Your task to perform on an android device: Search for "dell xps" on amazon.com, select the first entry, and add it to the cart. Image 0: 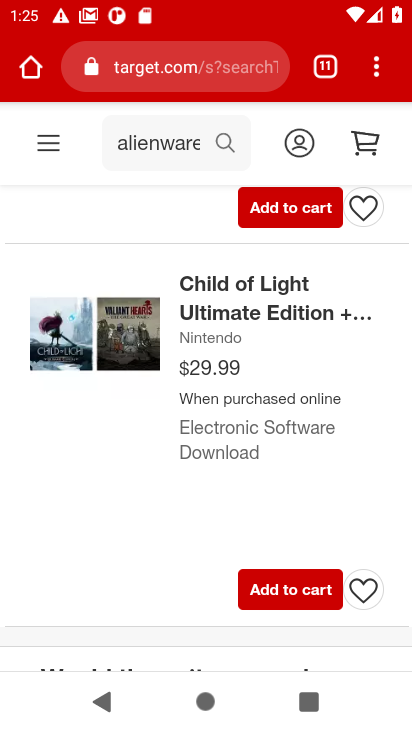
Step 0: click (162, 61)
Your task to perform on an android device: Search for "dell xps" on amazon.com, select the first entry, and add it to the cart. Image 1: 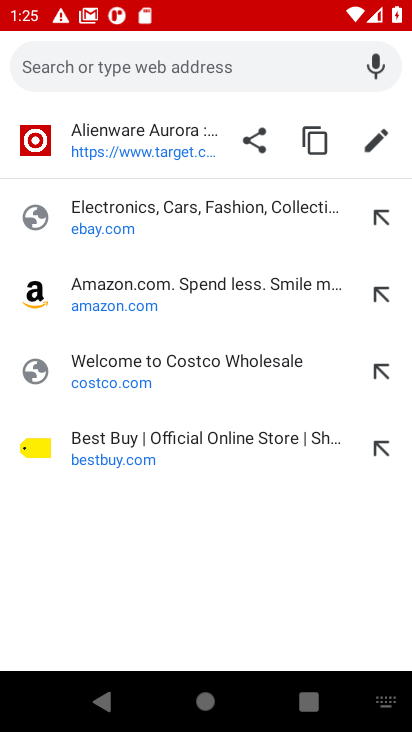
Step 1: click (82, 293)
Your task to perform on an android device: Search for "dell xps" on amazon.com, select the first entry, and add it to the cart. Image 2: 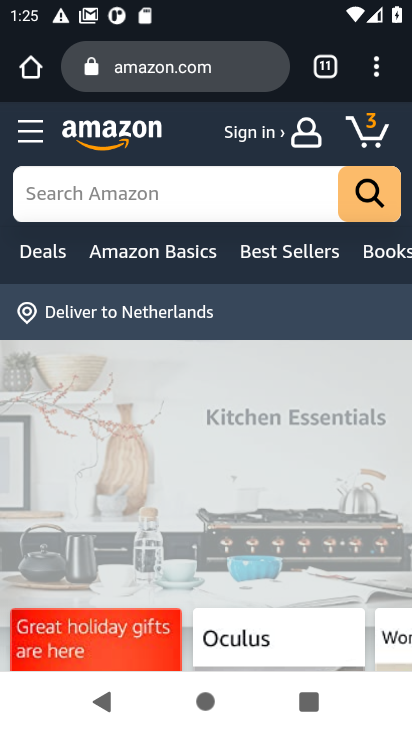
Step 2: click (113, 196)
Your task to perform on an android device: Search for "dell xps" on amazon.com, select the first entry, and add it to the cart. Image 3: 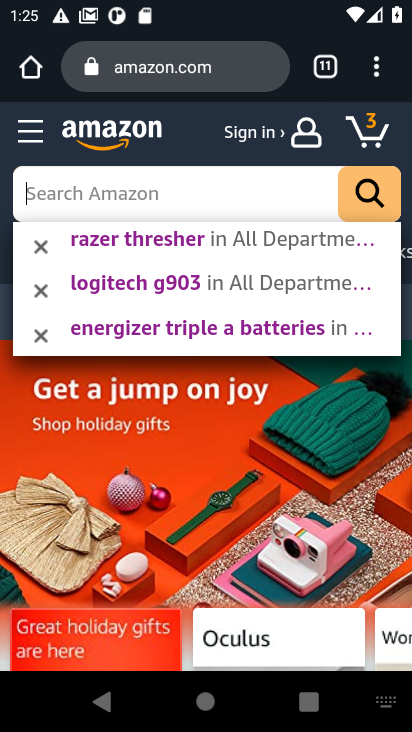
Step 3: type "dell xps"
Your task to perform on an android device: Search for "dell xps" on amazon.com, select the first entry, and add it to the cart. Image 4: 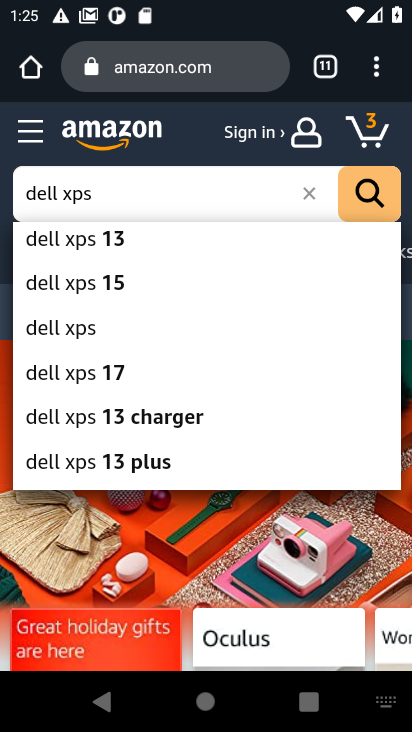
Step 4: click (79, 337)
Your task to perform on an android device: Search for "dell xps" on amazon.com, select the first entry, and add it to the cart. Image 5: 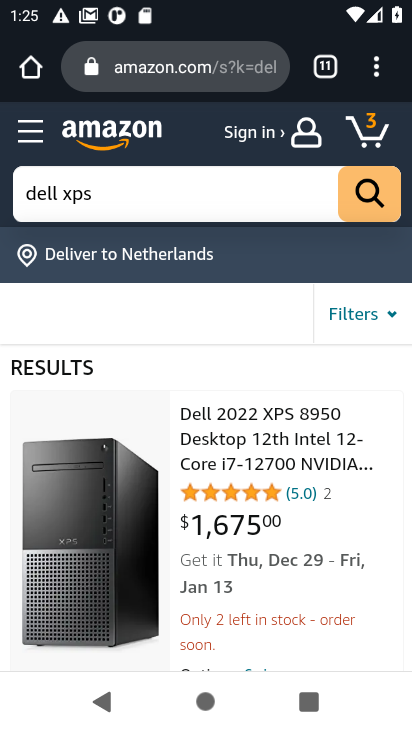
Step 5: drag from (194, 520) to (188, 307)
Your task to perform on an android device: Search for "dell xps" on amazon.com, select the first entry, and add it to the cart. Image 6: 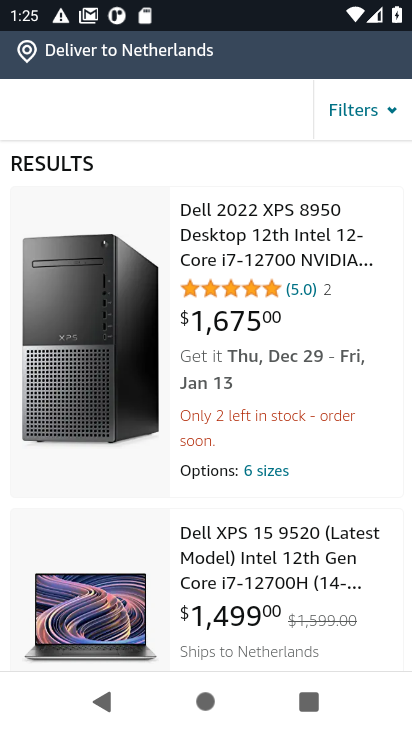
Step 6: click (318, 262)
Your task to perform on an android device: Search for "dell xps" on amazon.com, select the first entry, and add it to the cart. Image 7: 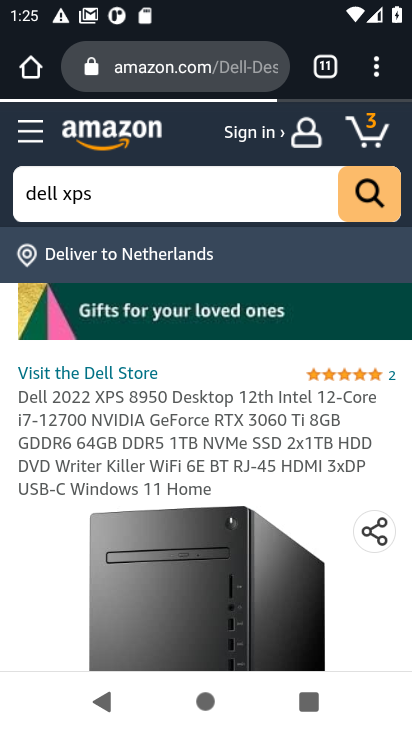
Step 7: drag from (198, 549) to (205, 88)
Your task to perform on an android device: Search for "dell xps" on amazon.com, select the first entry, and add it to the cart. Image 8: 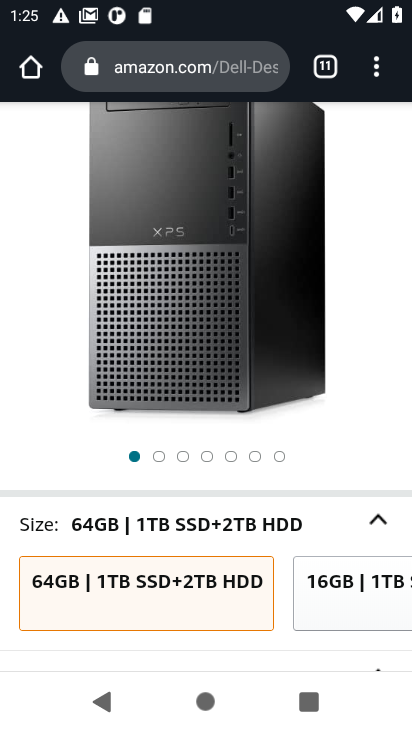
Step 8: drag from (189, 472) to (189, 129)
Your task to perform on an android device: Search for "dell xps" on amazon.com, select the first entry, and add it to the cart. Image 9: 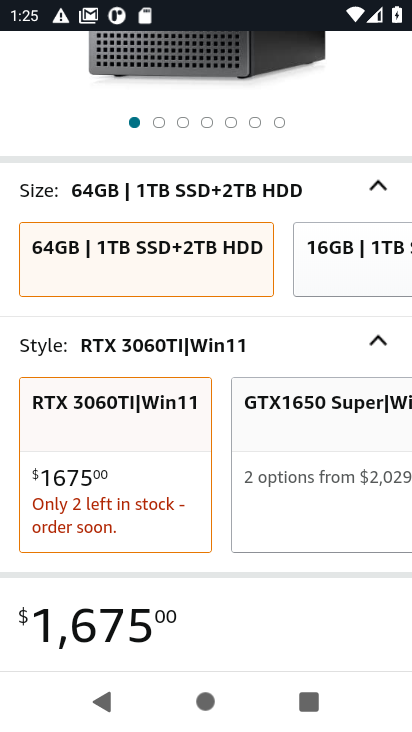
Step 9: drag from (189, 559) to (174, 128)
Your task to perform on an android device: Search for "dell xps" on amazon.com, select the first entry, and add it to the cart. Image 10: 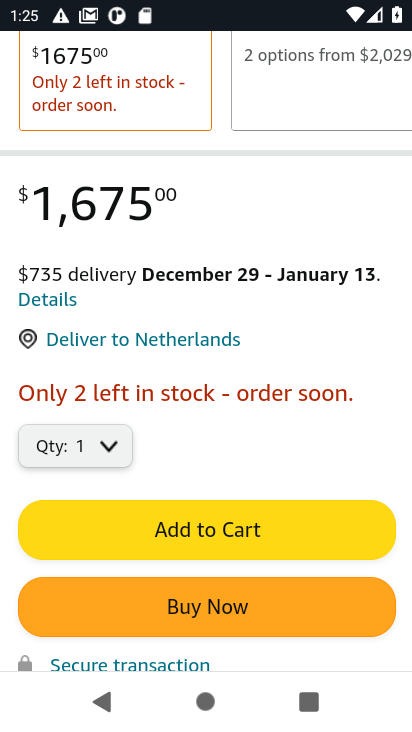
Step 10: click (176, 527)
Your task to perform on an android device: Search for "dell xps" on amazon.com, select the first entry, and add it to the cart. Image 11: 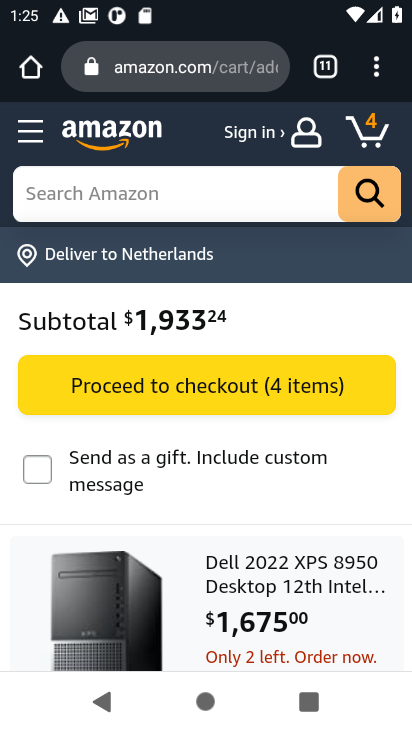
Step 11: task complete